Your task to perform on an android device: What is the recent news? Image 0: 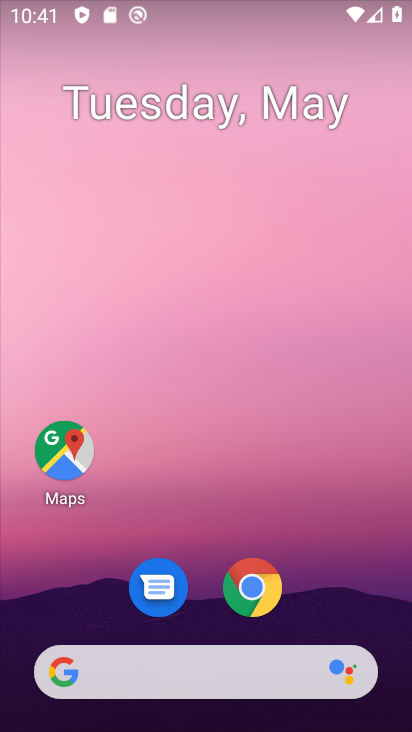
Step 0: drag from (342, 593) to (262, 63)
Your task to perform on an android device: What is the recent news? Image 1: 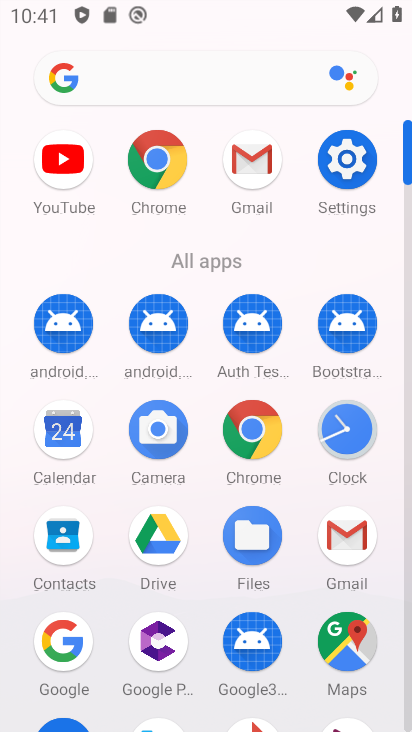
Step 1: drag from (14, 618) to (23, 300)
Your task to perform on an android device: What is the recent news? Image 2: 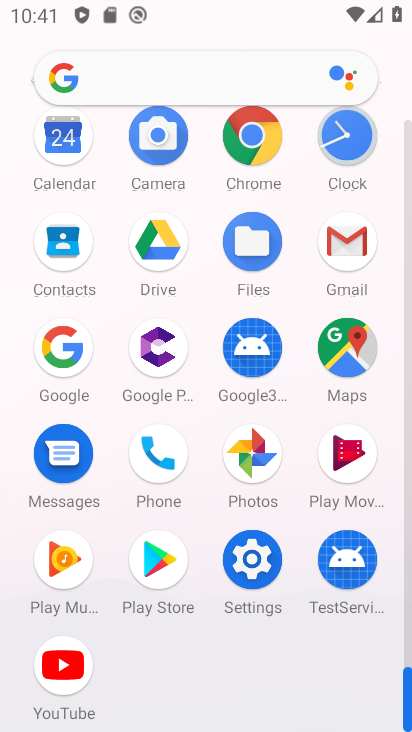
Step 2: click (251, 133)
Your task to perform on an android device: What is the recent news? Image 3: 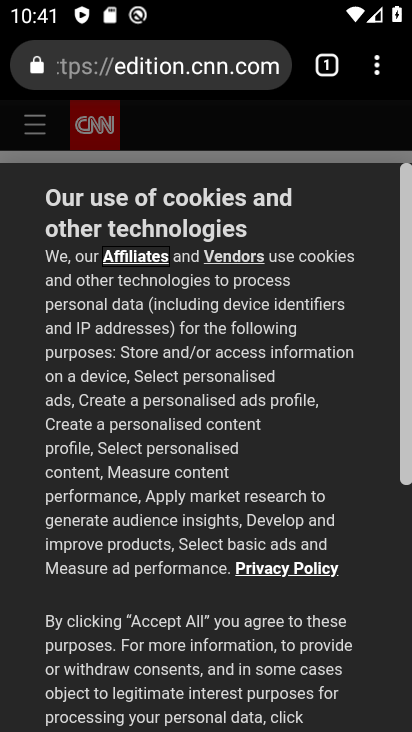
Step 3: click (132, 61)
Your task to perform on an android device: What is the recent news? Image 4: 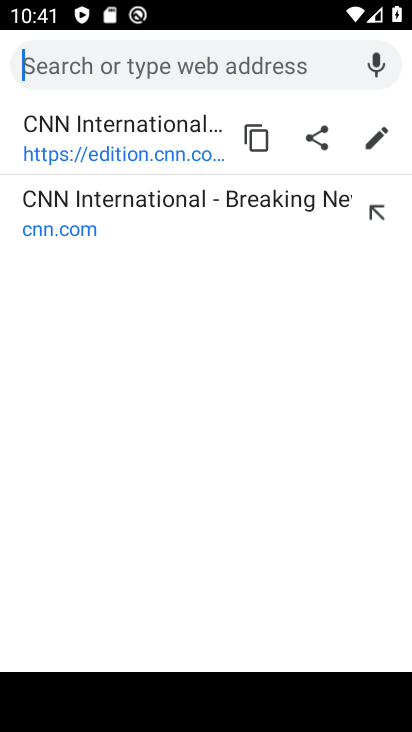
Step 4: type "What is the recent news?"
Your task to perform on an android device: What is the recent news? Image 5: 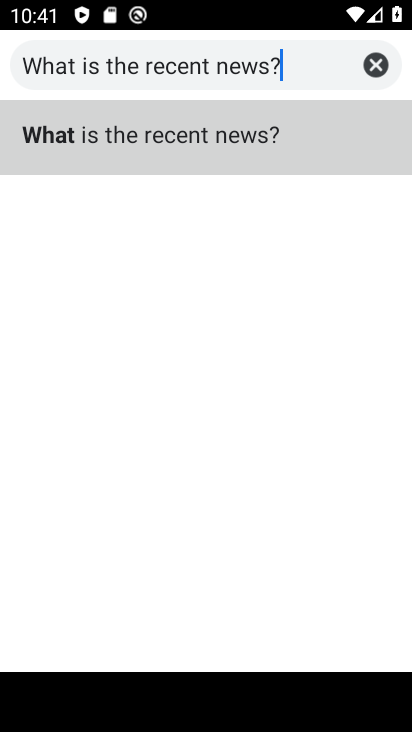
Step 5: click (187, 130)
Your task to perform on an android device: What is the recent news? Image 6: 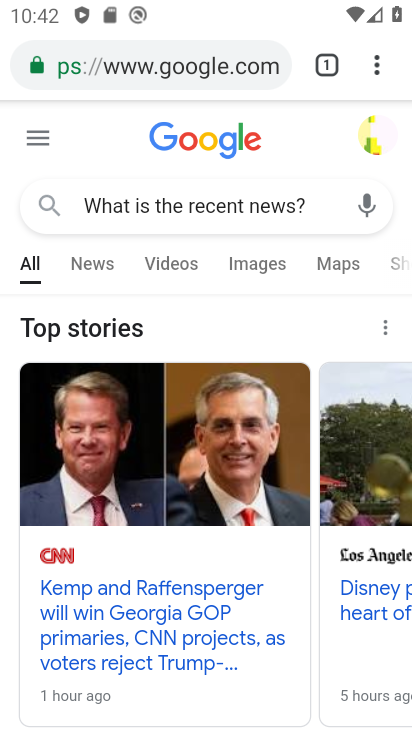
Step 6: task complete